Your task to perform on an android device: toggle pop-ups in chrome Image 0: 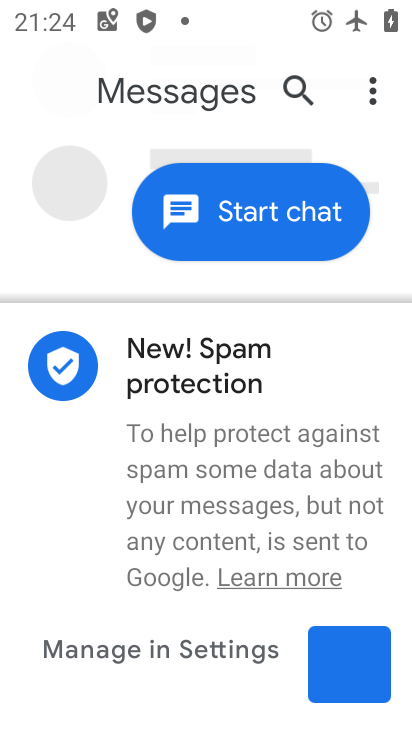
Step 0: press home button
Your task to perform on an android device: toggle pop-ups in chrome Image 1: 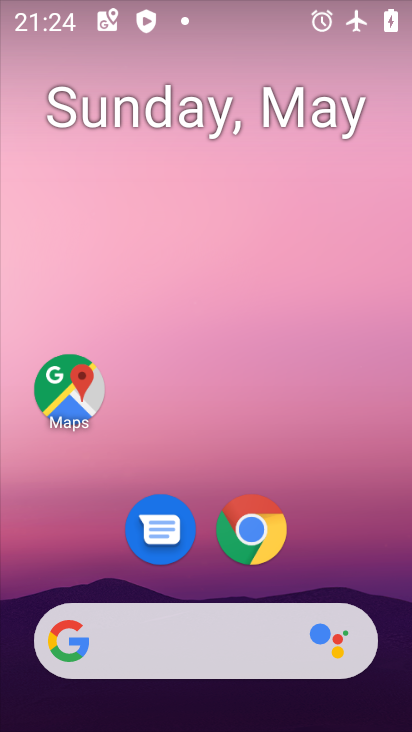
Step 1: click (247, 537)
Your task to perform on an android device: toggle pop-ups in chrome Image 2: 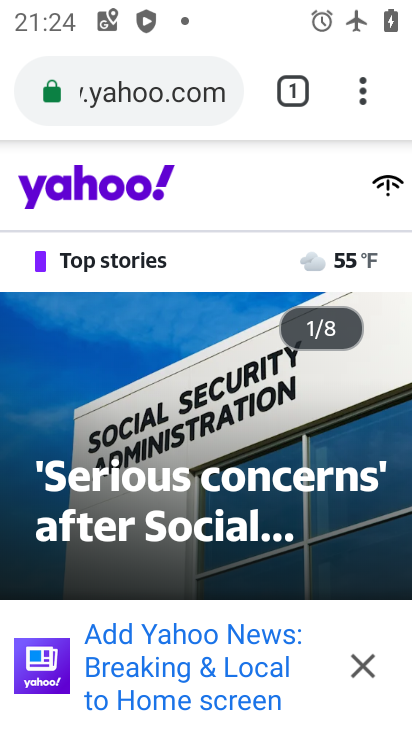
Step 2: click (366, 84)
Your task to perform on an android device: toggle pop-ups in chrome Image 3: 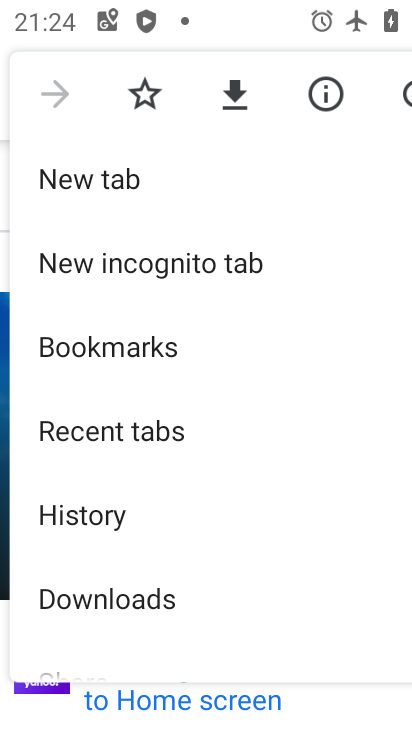
Step 3: drag from (259, 540) to (233, 23)
Your task to perform on an android device: toggle pop-ups in chrome Image 4: 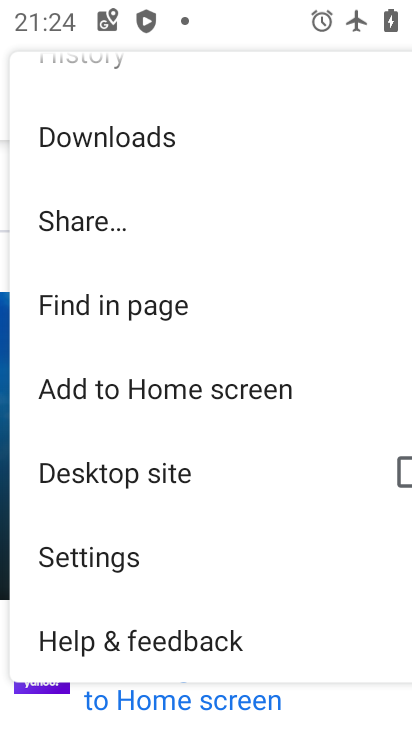
Step 4: click (117, 564)
Your task to perform on an android device: toggle pop-ups in chrome Image 5: 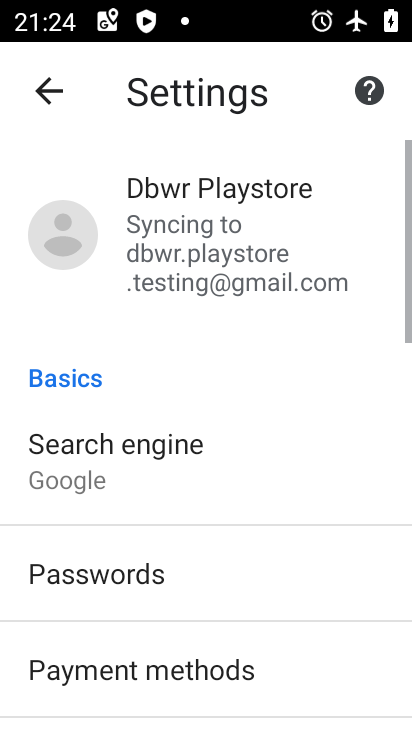
Step 5: drag from (196, 638) to (188, 125)
Your task to perform on an android device: toggle pop-ups in chrome Image 6: 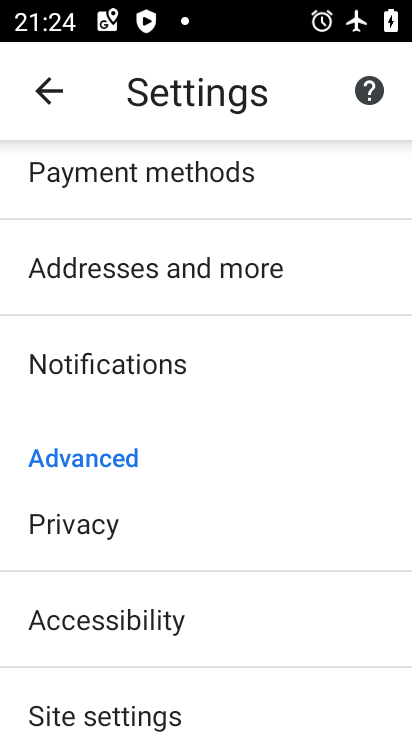
Step 6: drag from (210, 540) to (211, 120)
Your task to perform on an android device: toggle pop-ups in chrome Image 7: 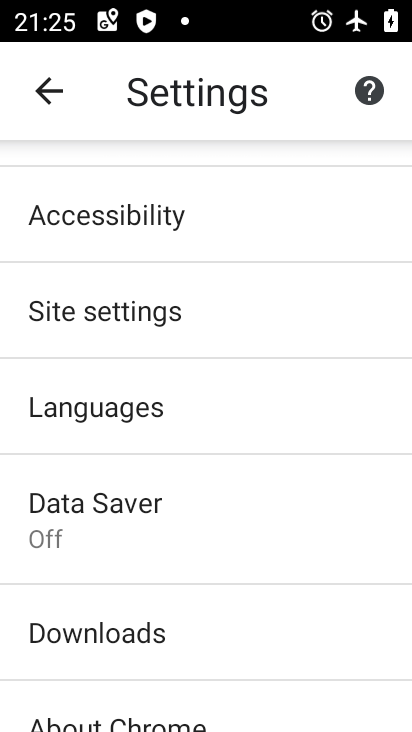
Step 7: click (85, 318)
Your task to perform on an android device: toggle pop-ups in chrome Image 8: 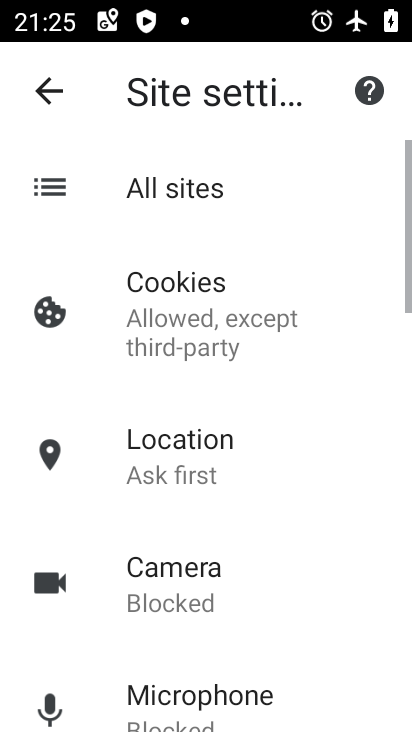
Step 8: drag from (224, 588) to (224, 149)
Your task to perform on an android device: toggle pop-ups in chrome Image 9: 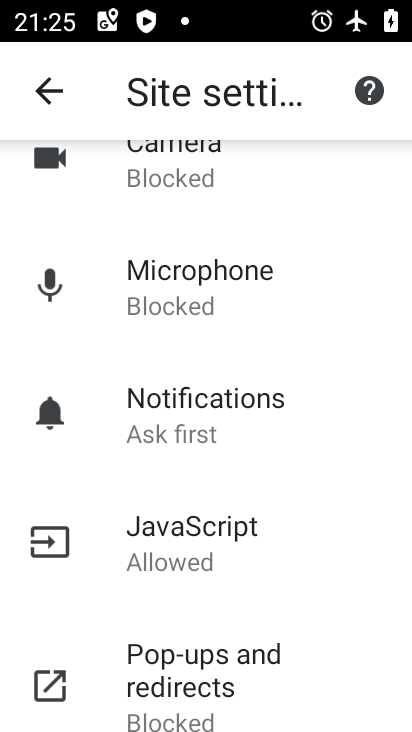
Step 9: drag from (225, 546) to (216, 171)
Your task to perform on an android device: toggle pop-ups in chrome Image 10: 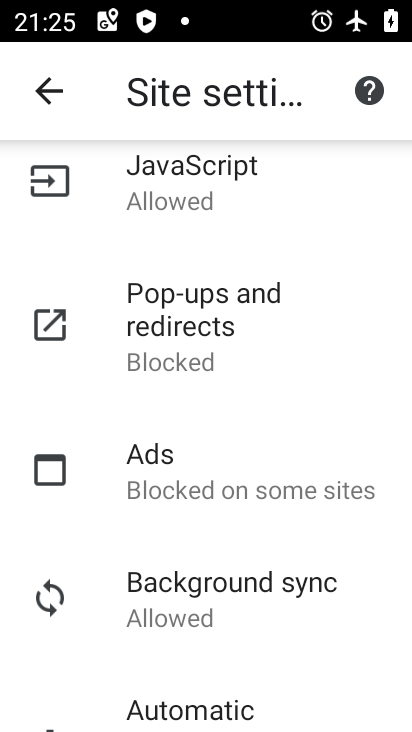
Step 10: click (174, 354)
Your task to perform on an android device: toggle pop-ups in chrome Image 11: 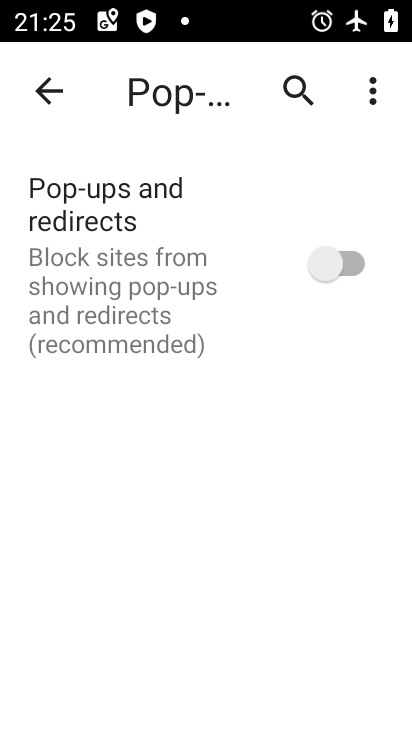
Step 11: click (293, 269)
Your task to perform on an android device: toggle pop-ups in chrome Image 12: 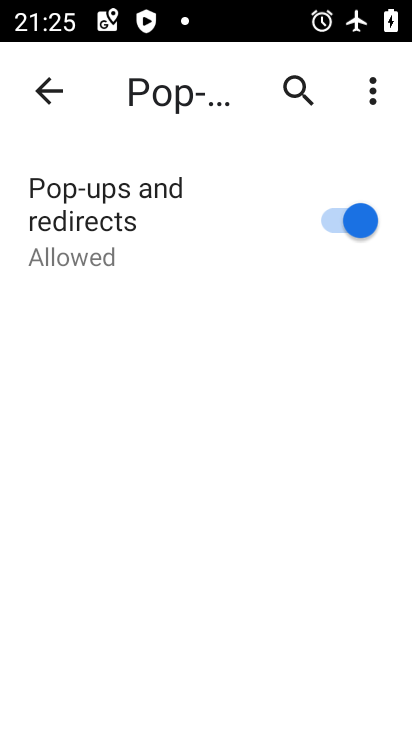
Step 12: task complete